Your task to perform on an android device: Empty the shopping cart on ebay.com. Add dell alienware to the cart on ebay.com, then select checkout. Image 0: 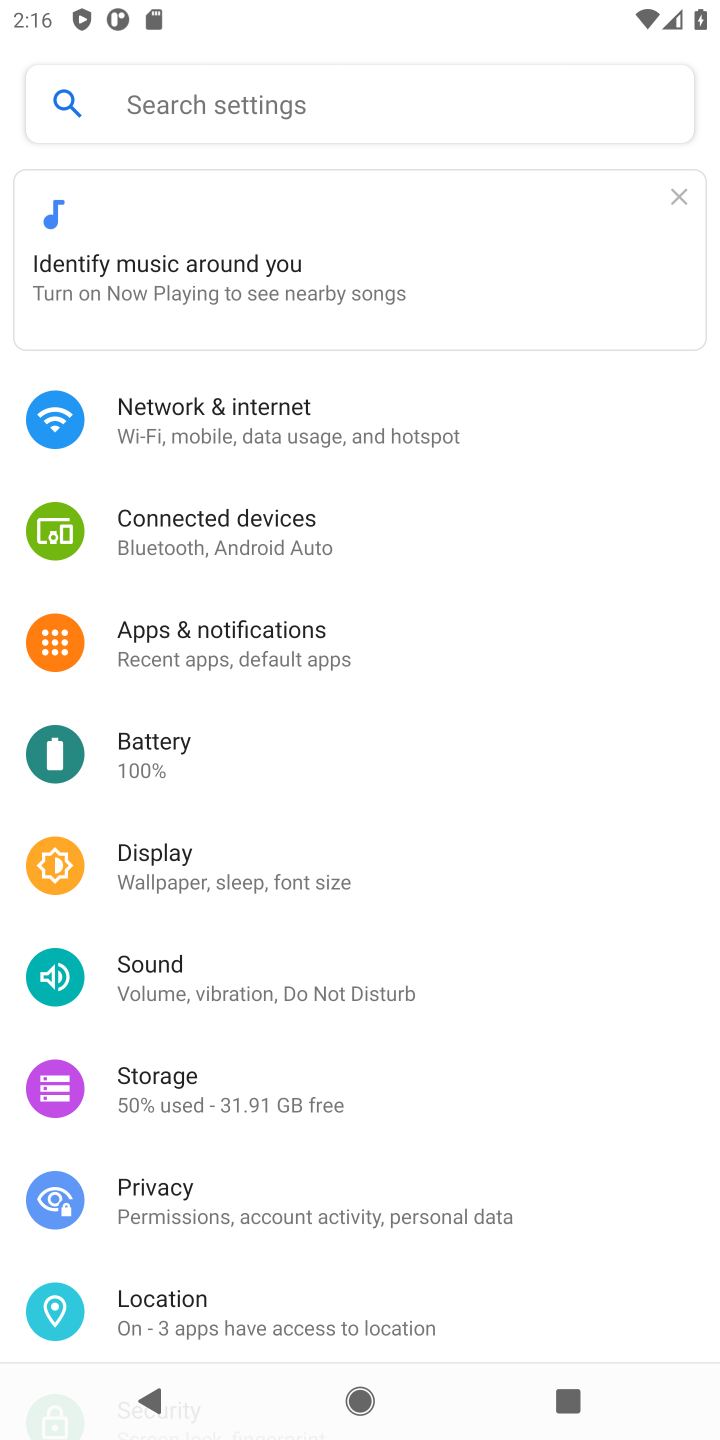
Step 0: press home button
Your task to perform on an android device: Empty the shopping cart on ebay.com. Add dell alienware to the cart on ebay.com, then select checkout. Image 1: 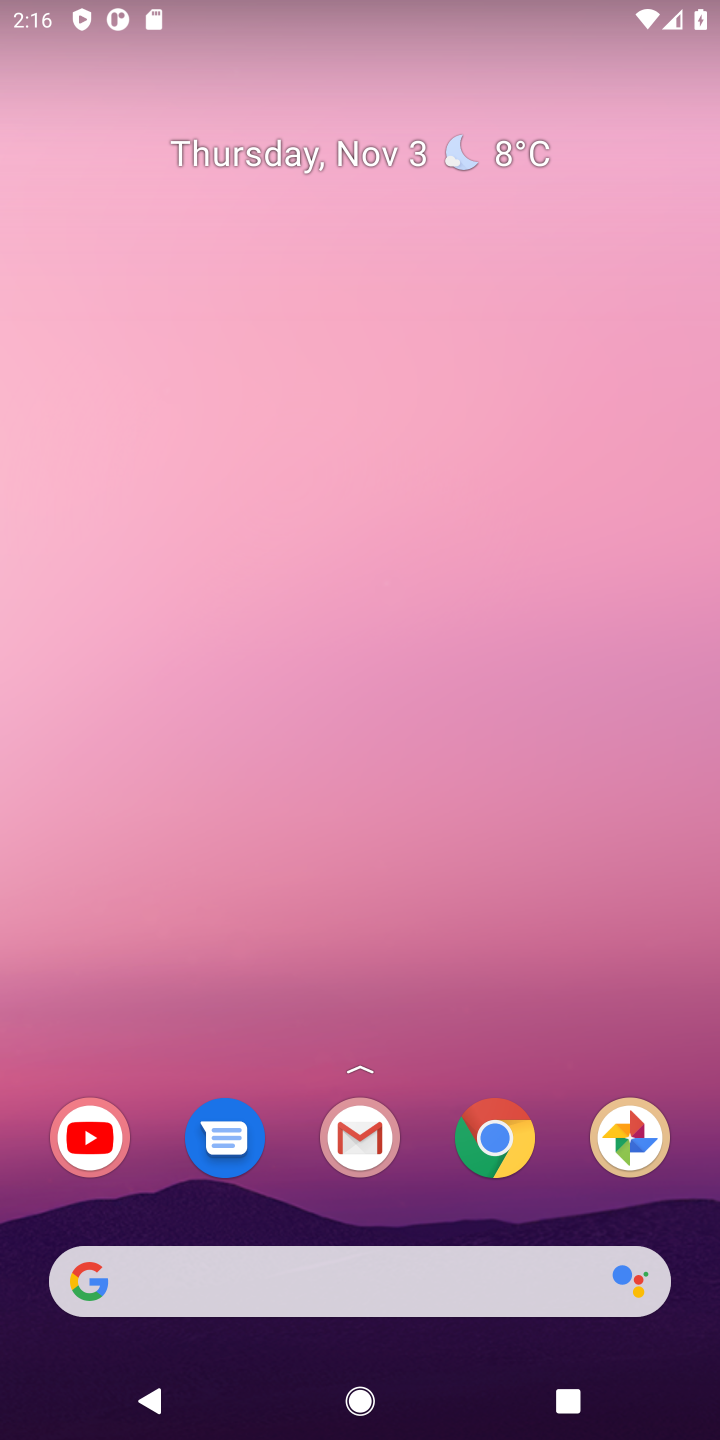
Step 1: click (527, 1145)
Your task to perform on an android device: Empty the shopping cart on ebay.com. Add dell alienware to the cart on ebay.com, then select checkout. Image 2: 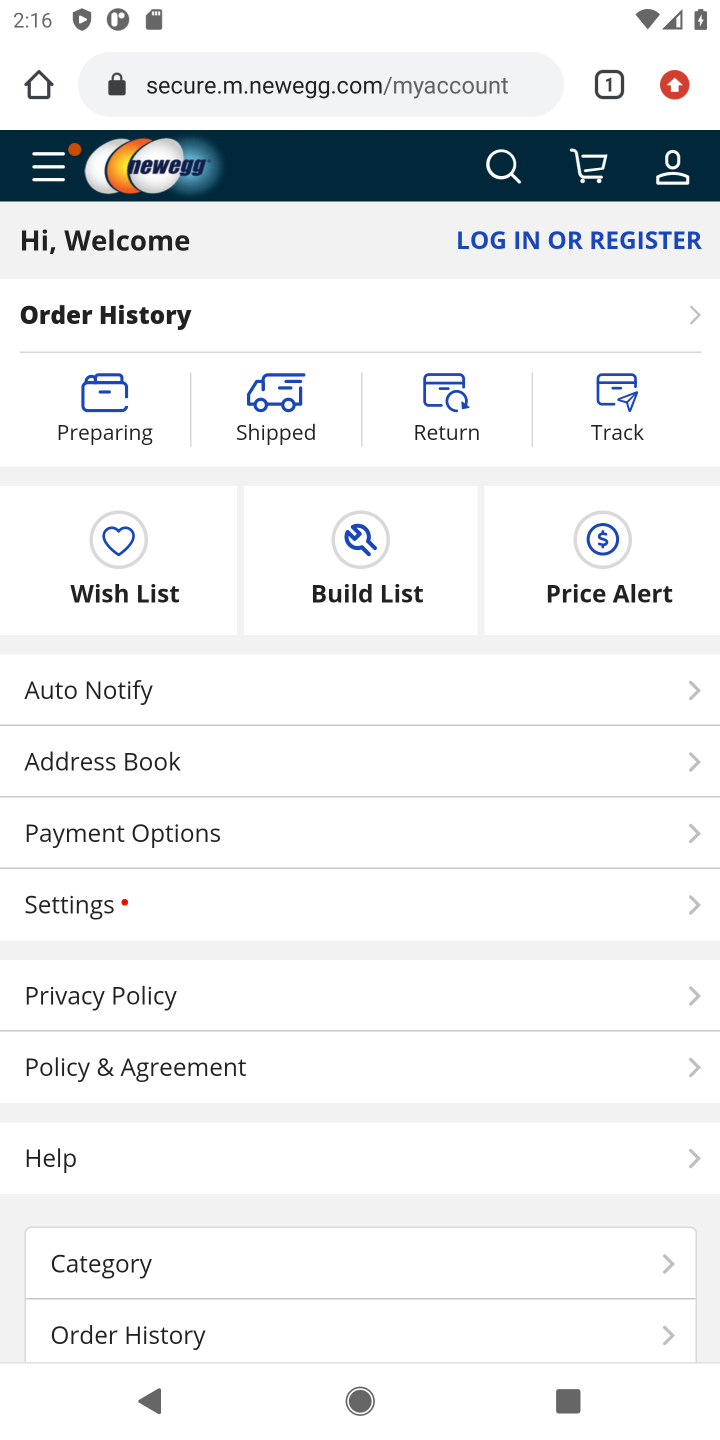
Step 2: click (346, 78)
Your task to perform on an android device: Empty the shopping cart on ebay.com. Add dell alienware to the cart on ebay.com, then select checkout. Image 3: 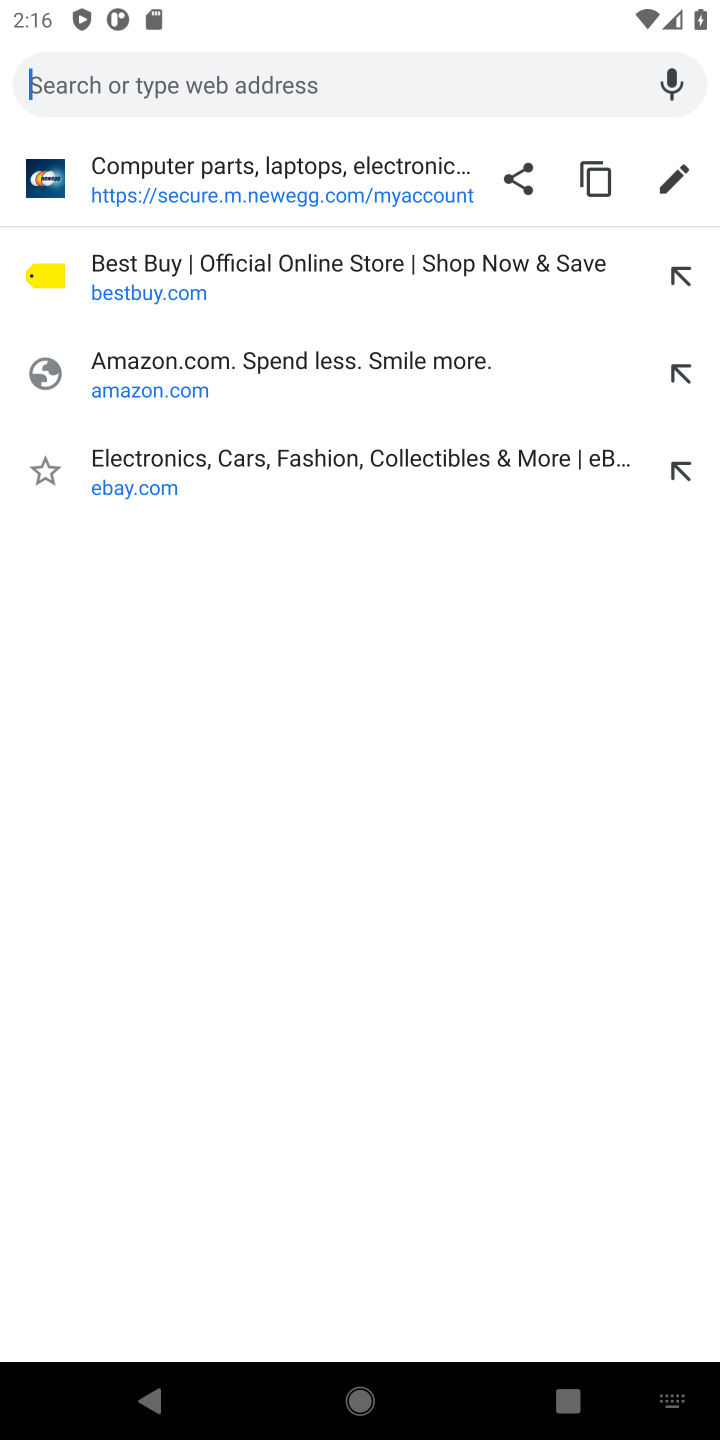
Step 3: type "ebay"
Your task to perform on an android device: Empty the shopping cart on ebay.com. Add dell alienware to the cart on ebay.com, then select checkout. Image 4: 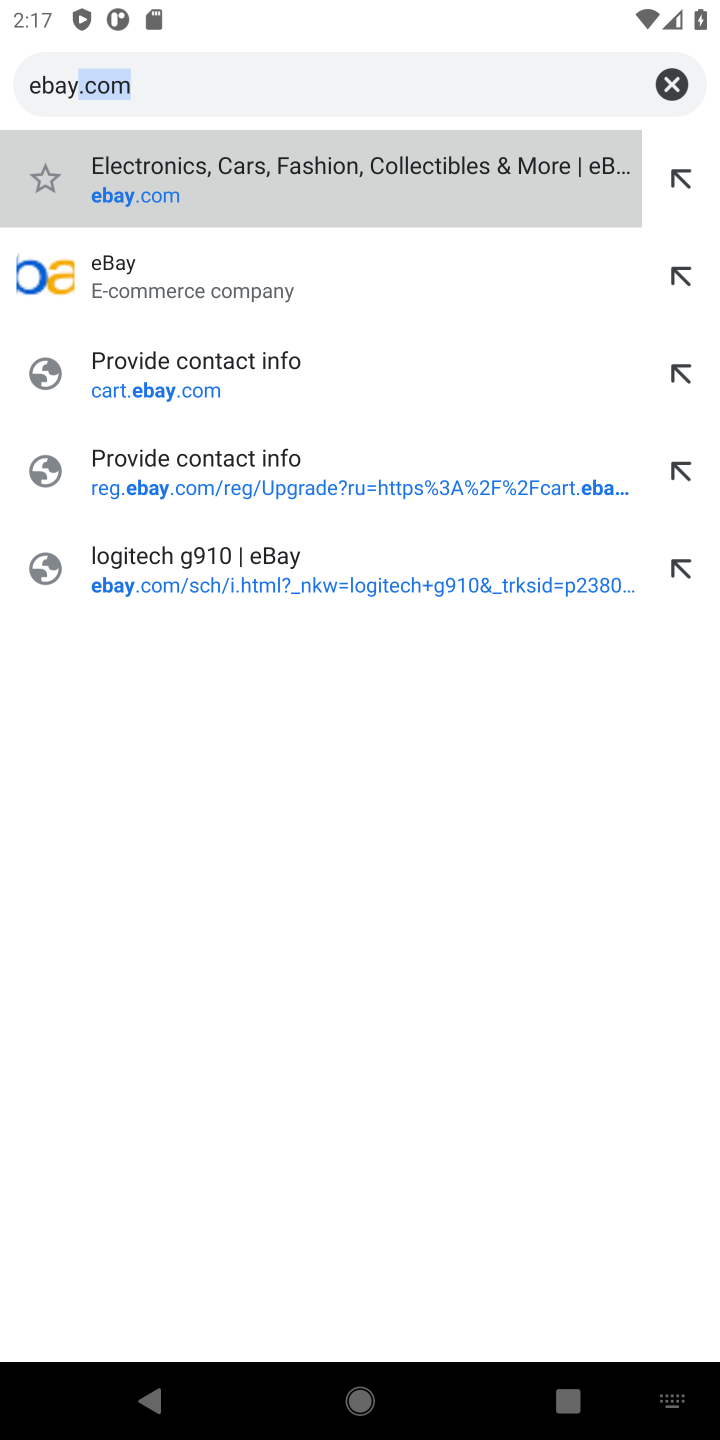
Step 4: click (144, 280)
Your task to perform on an android device: Empty the shopping cart on ebay.com. Add dell alienware to the cart on ebay.com, then select checkout. Image 5: 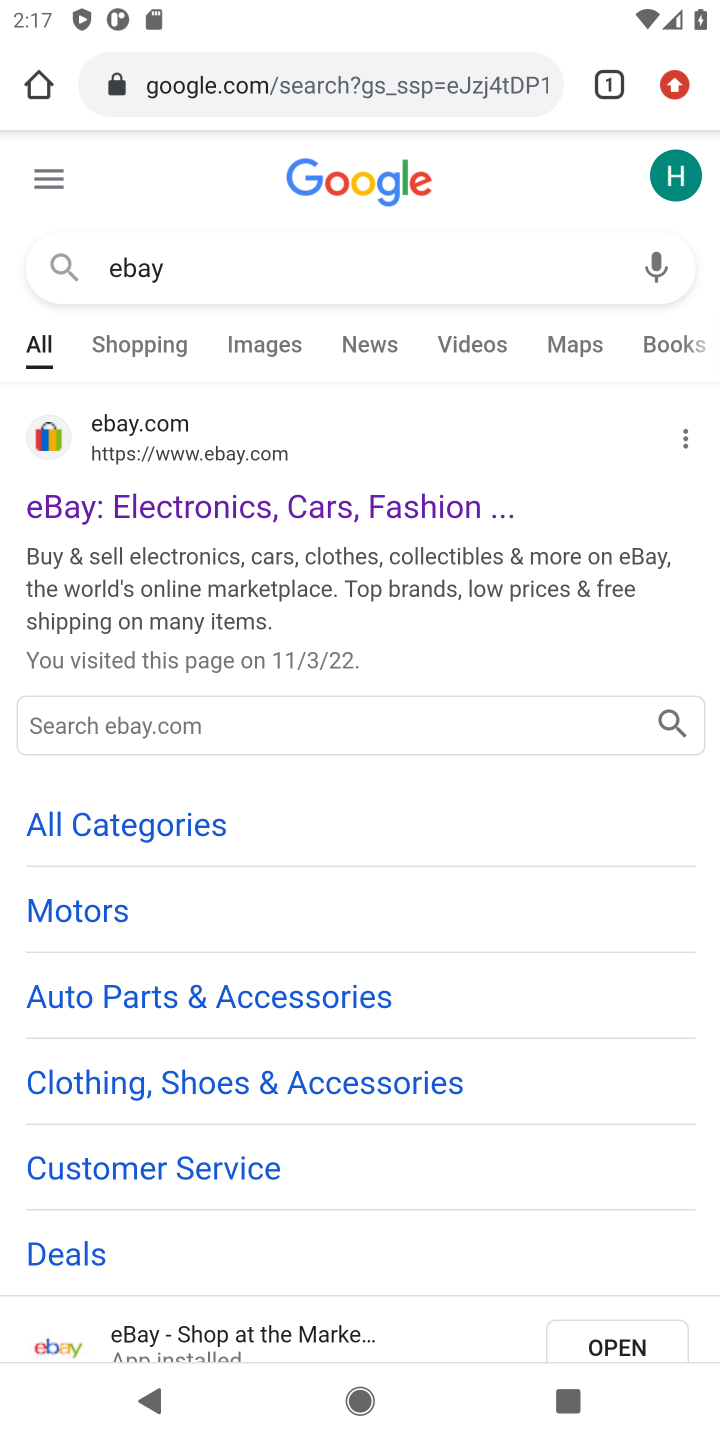
Step 5: click (205, 502)
Your task to perform on an android device: Empty the shopping cart on ebay.com. Add dell alienware to the cart on ebay.com, then select checkout. Image 6: 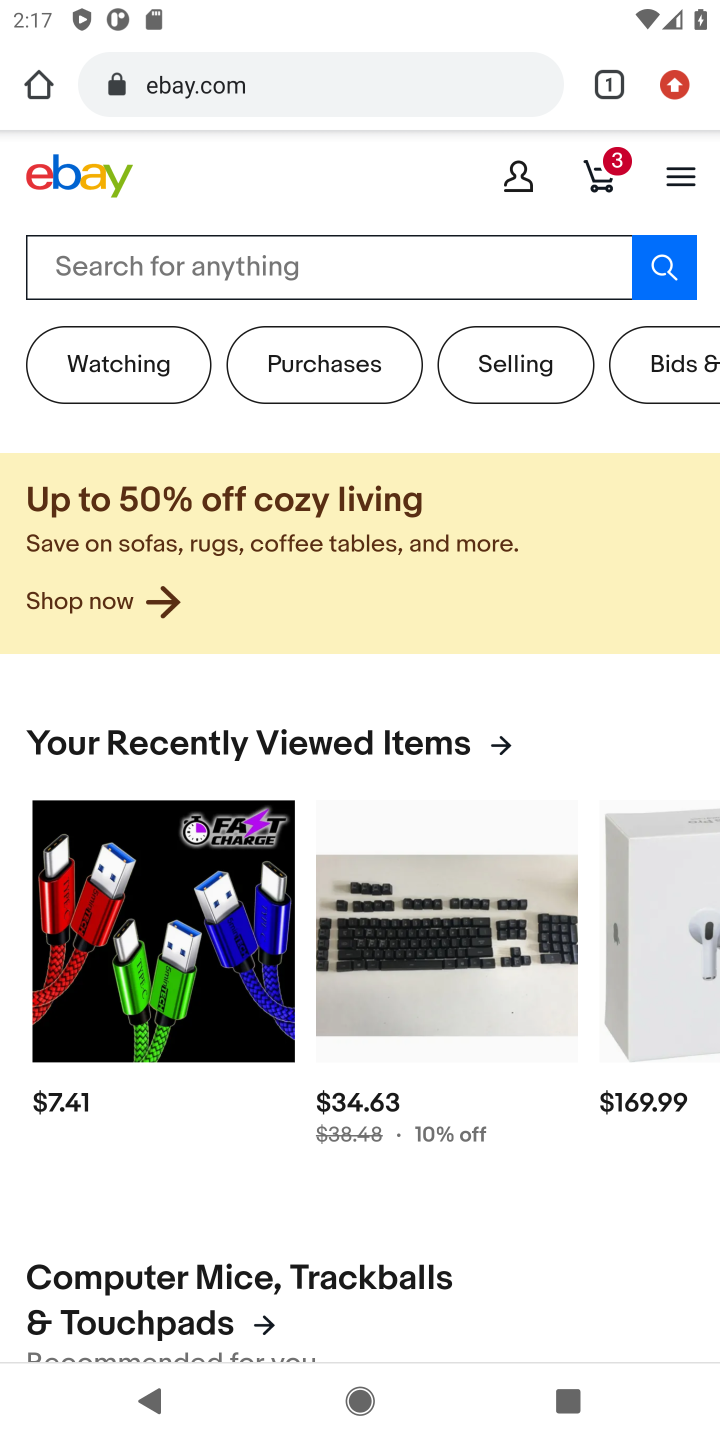
Step 6: click (611, 171)
Your task to perform on an android device: Empty the shopping cart on ebay.com. Add dell alienware to the cart on ebay.com, then select checkout. Image 7: 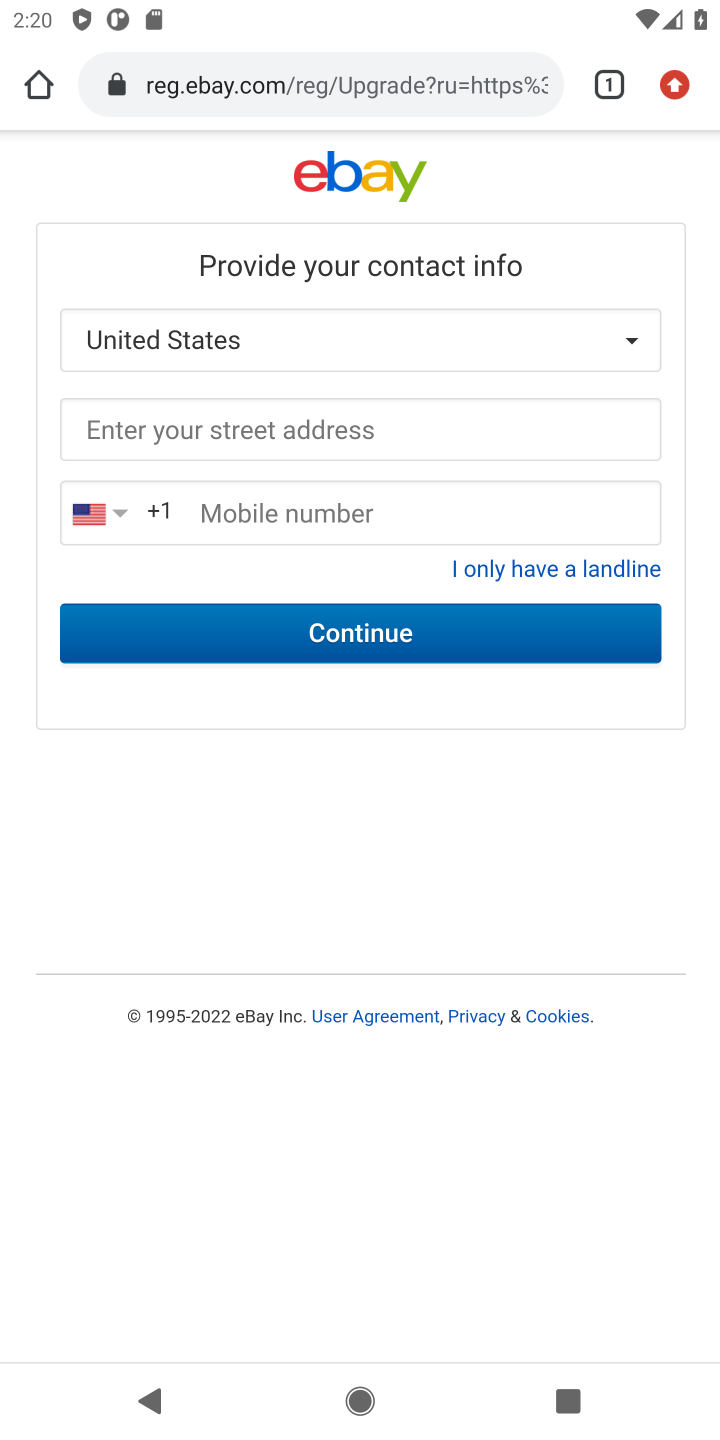
Step 7: task complete